Your task to perform on an android device: snooze an email in the gmail app Image 0: 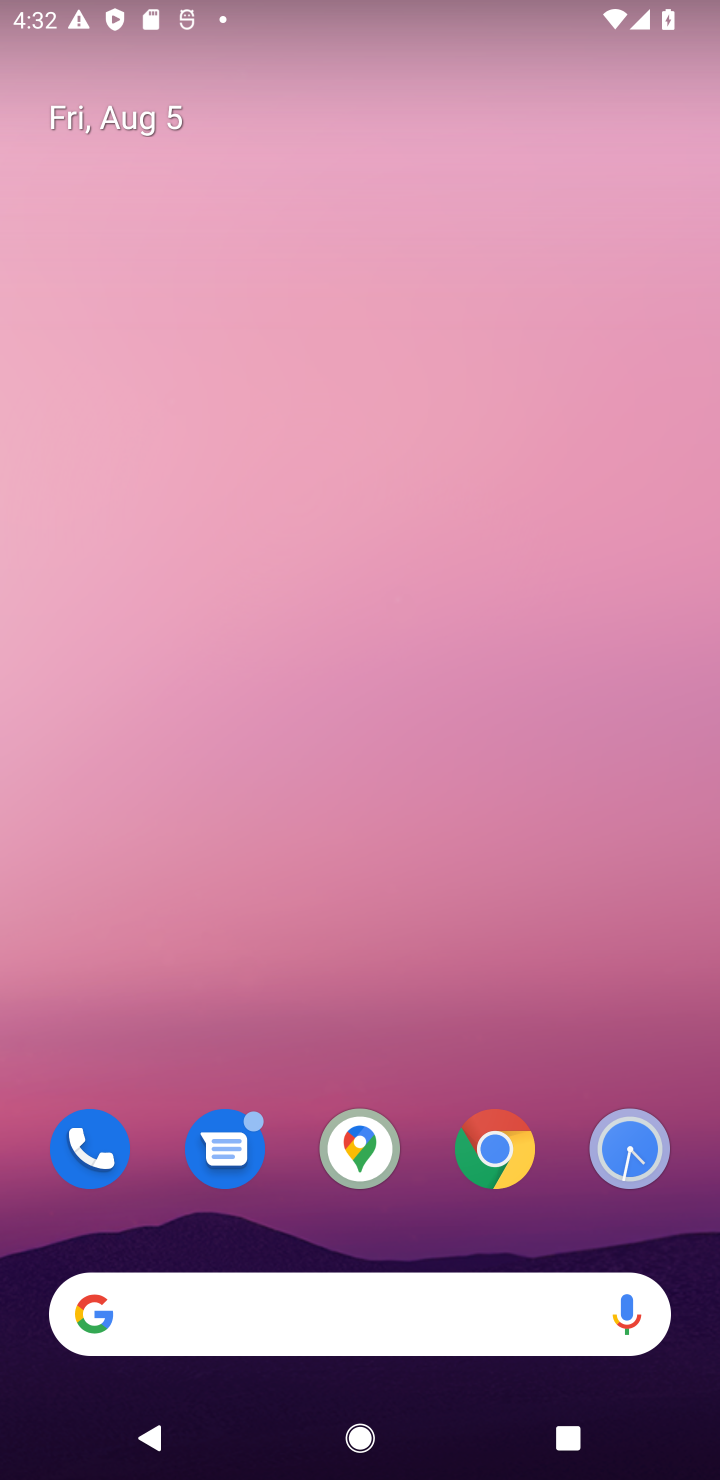
Step 0: press back button
Your task to perform on an android device: snooze an email in the gmail app Image 1: 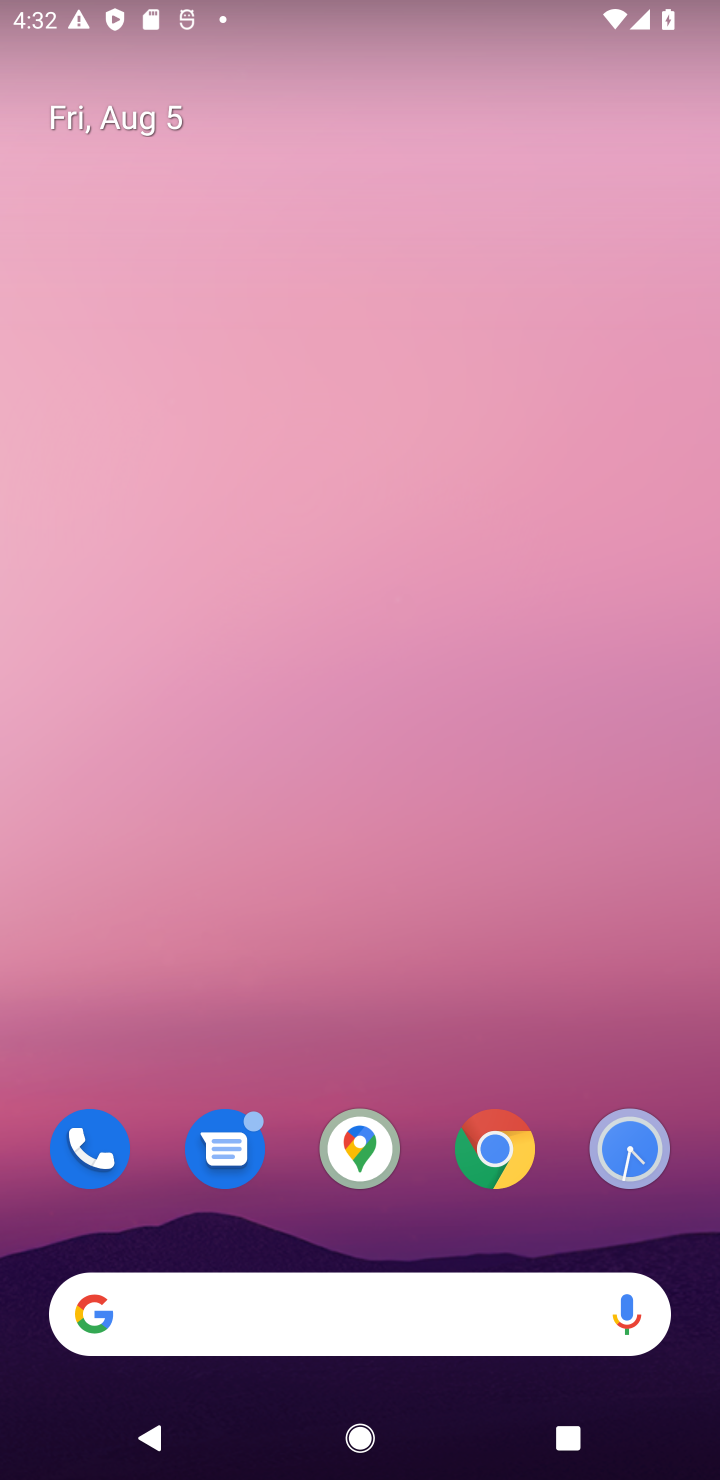
Step 1: drag from (424, 389) to (463, 27)
Your task to perform on an android device: snooze an email in the gmail app Image 2: 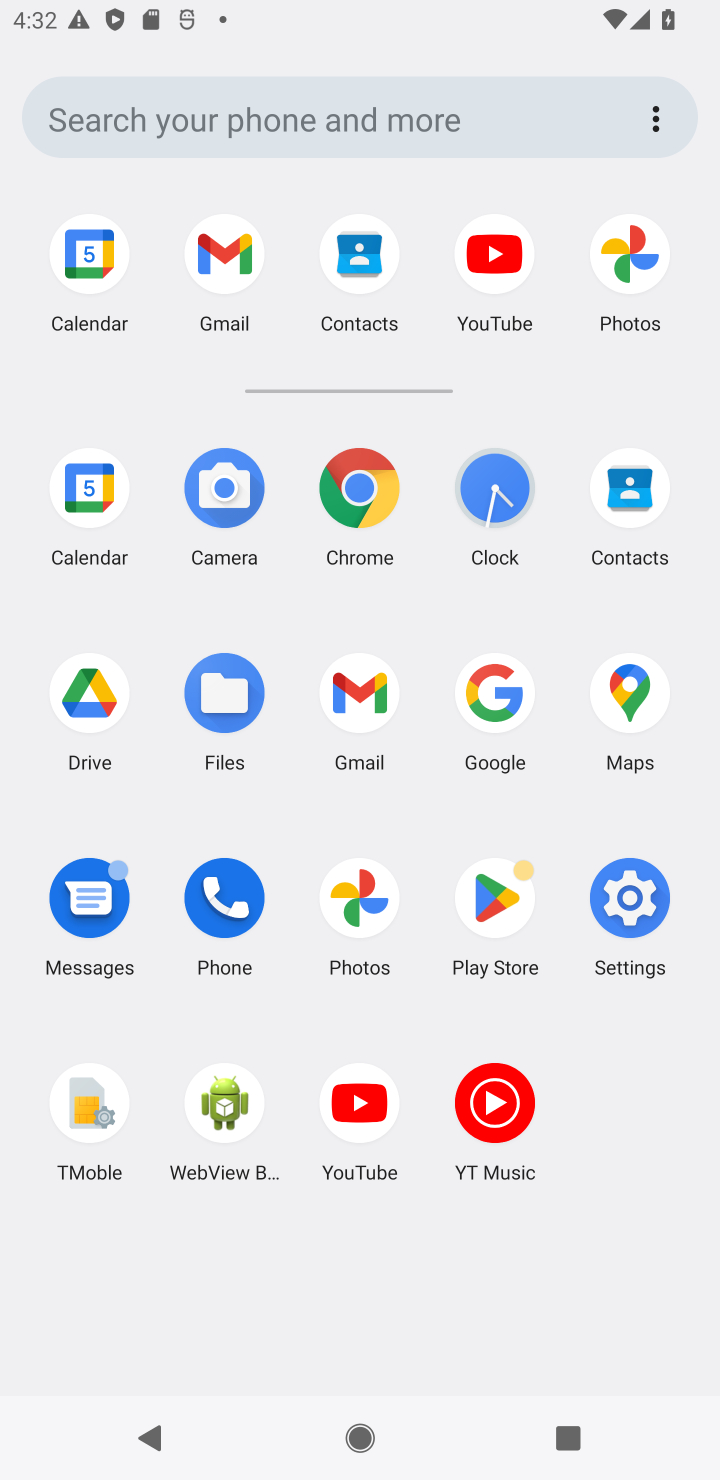
Step 2: click (501, 465)
Your task to perform on an android device: snooze an email in the gmail app Image 3: 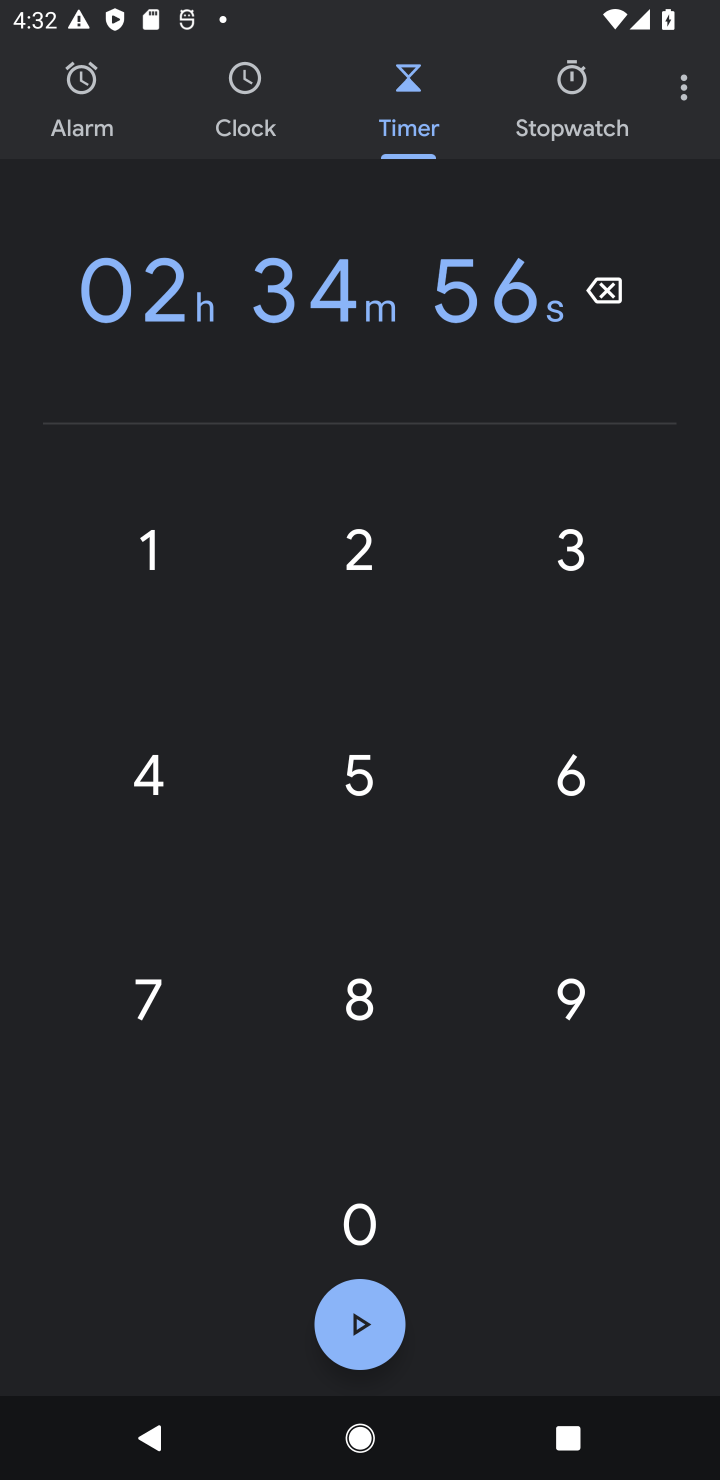
Step 3: click (93, 93)
Your task to perform on an android device: snooze an email in the gmail app Image 4: 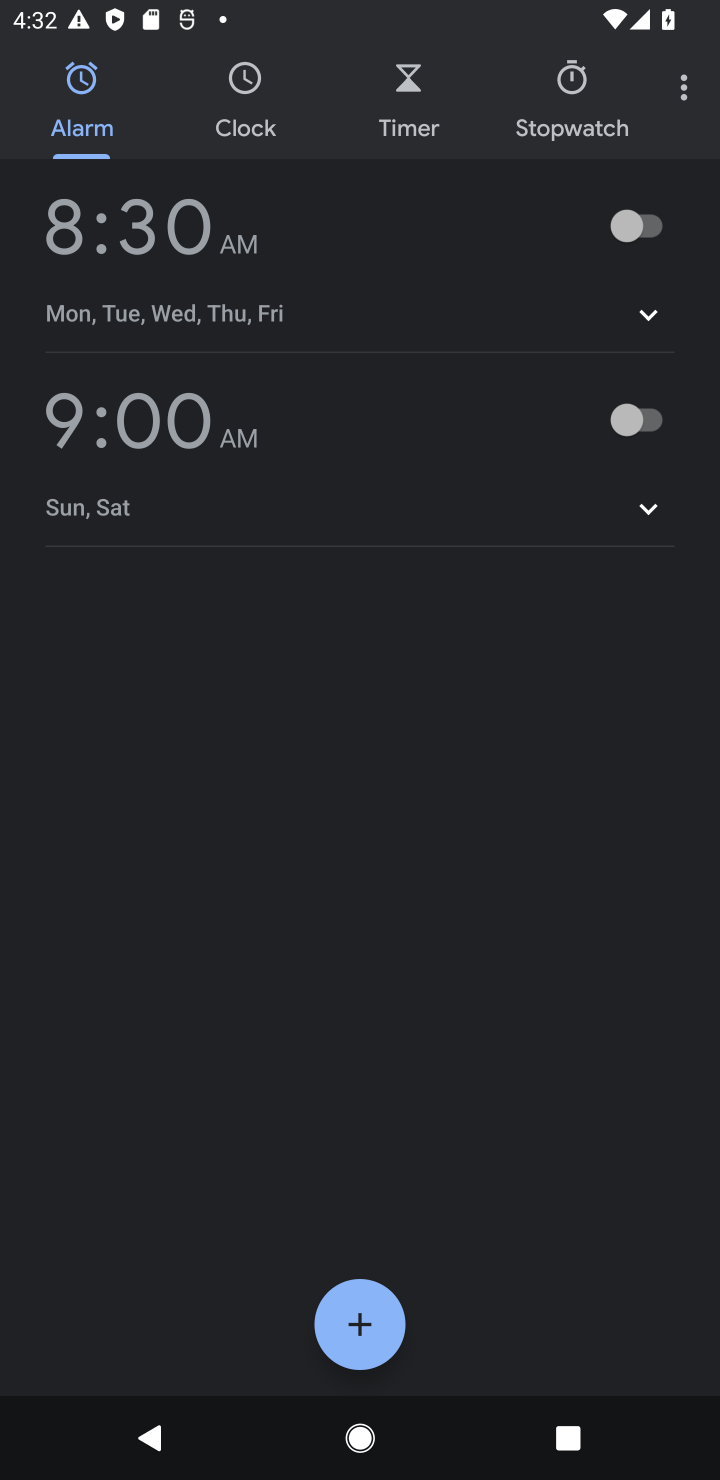
Step 4: press back button
Your task to perform on an android device: snooze an email in the gmail app Image 5: 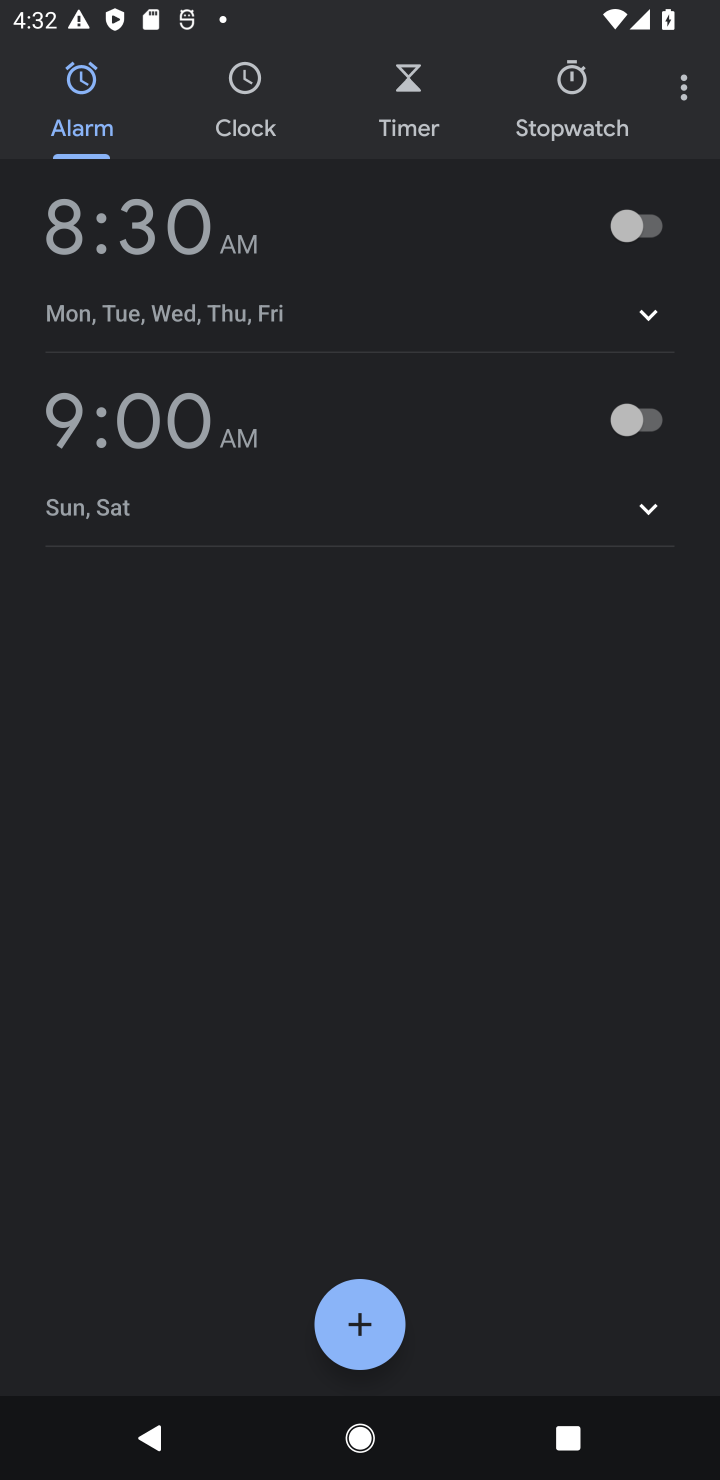
Step 5: press back button
Your task to perform on an android device: snooze an email in the gmail app Image 6: 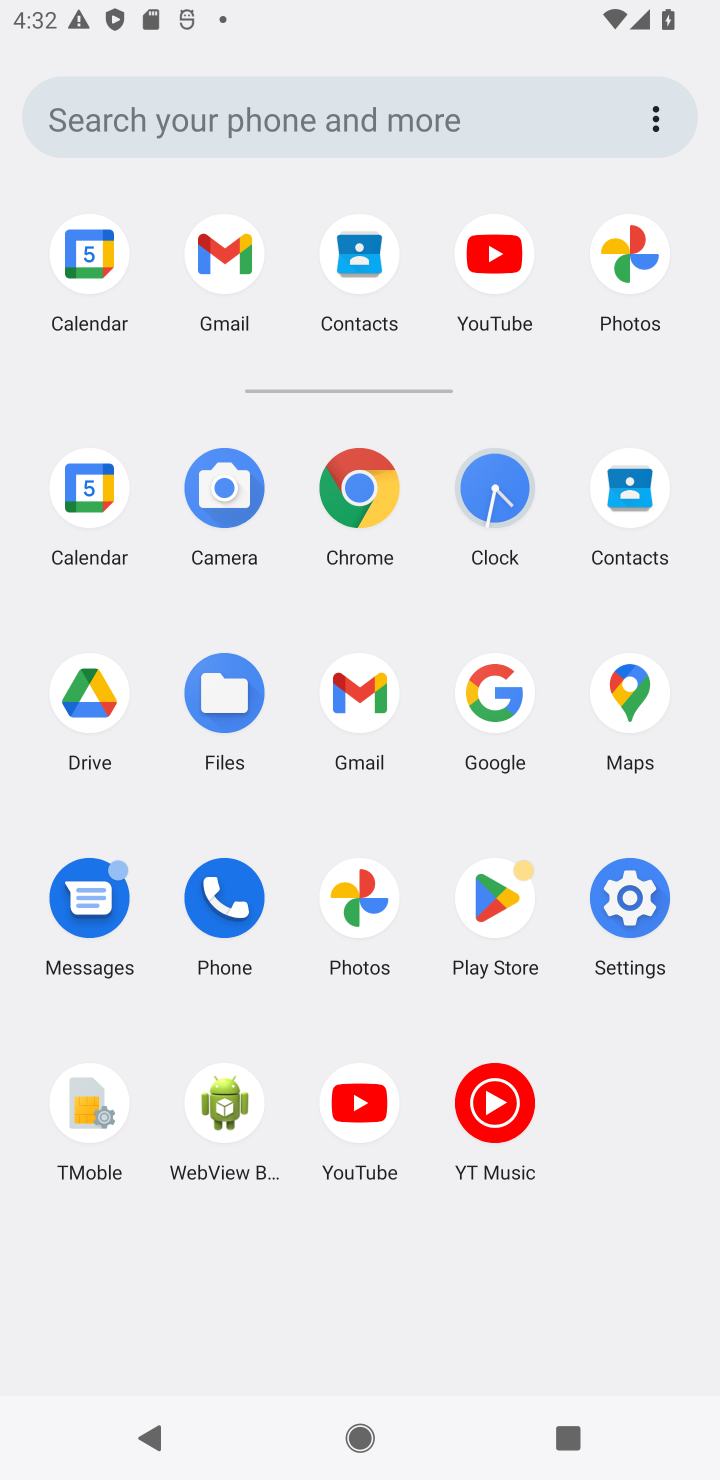
Step 6: press back button
Your task to perform on an android device: snooze an email in the gmail app Image 7: 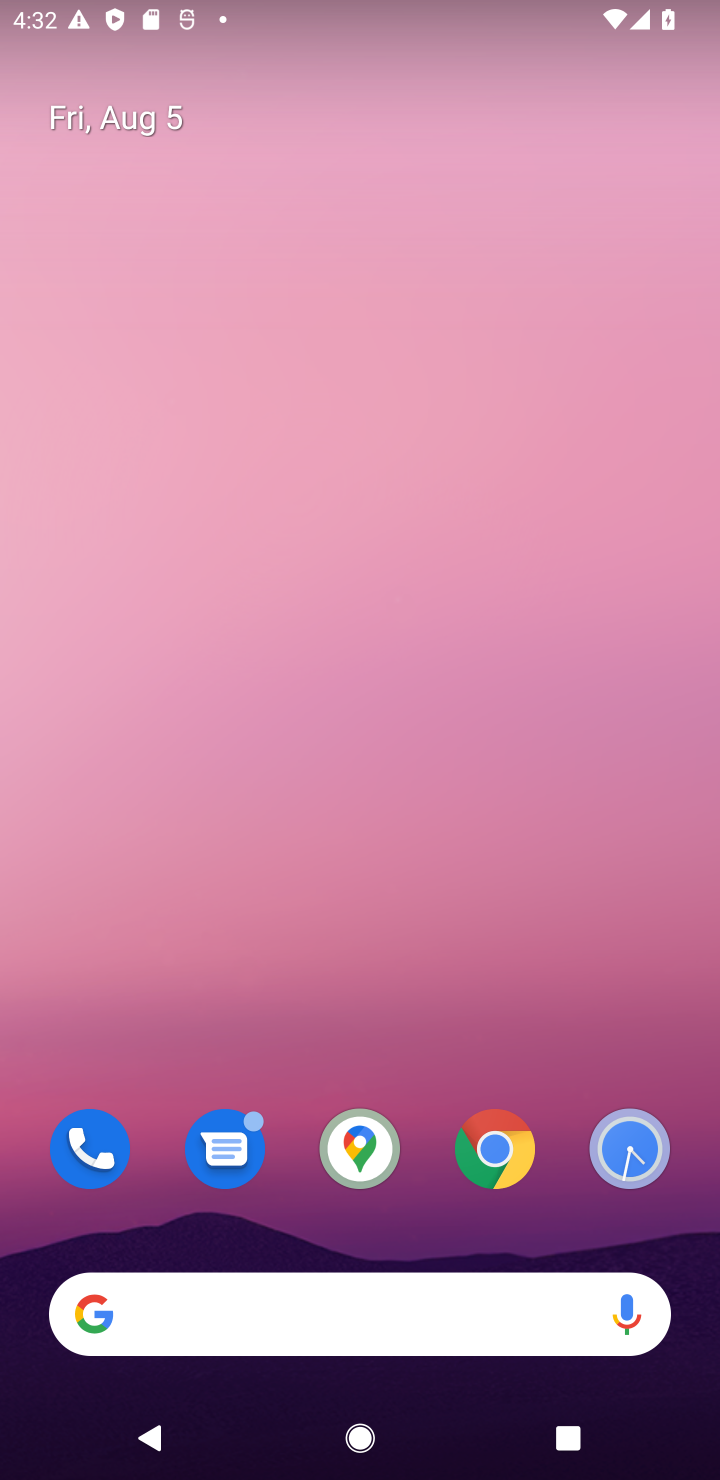
Step 7: drag from (303, 1053) to (434, 170)
Your task to perform on an android device: snooze an email in the gmail app Image 8: 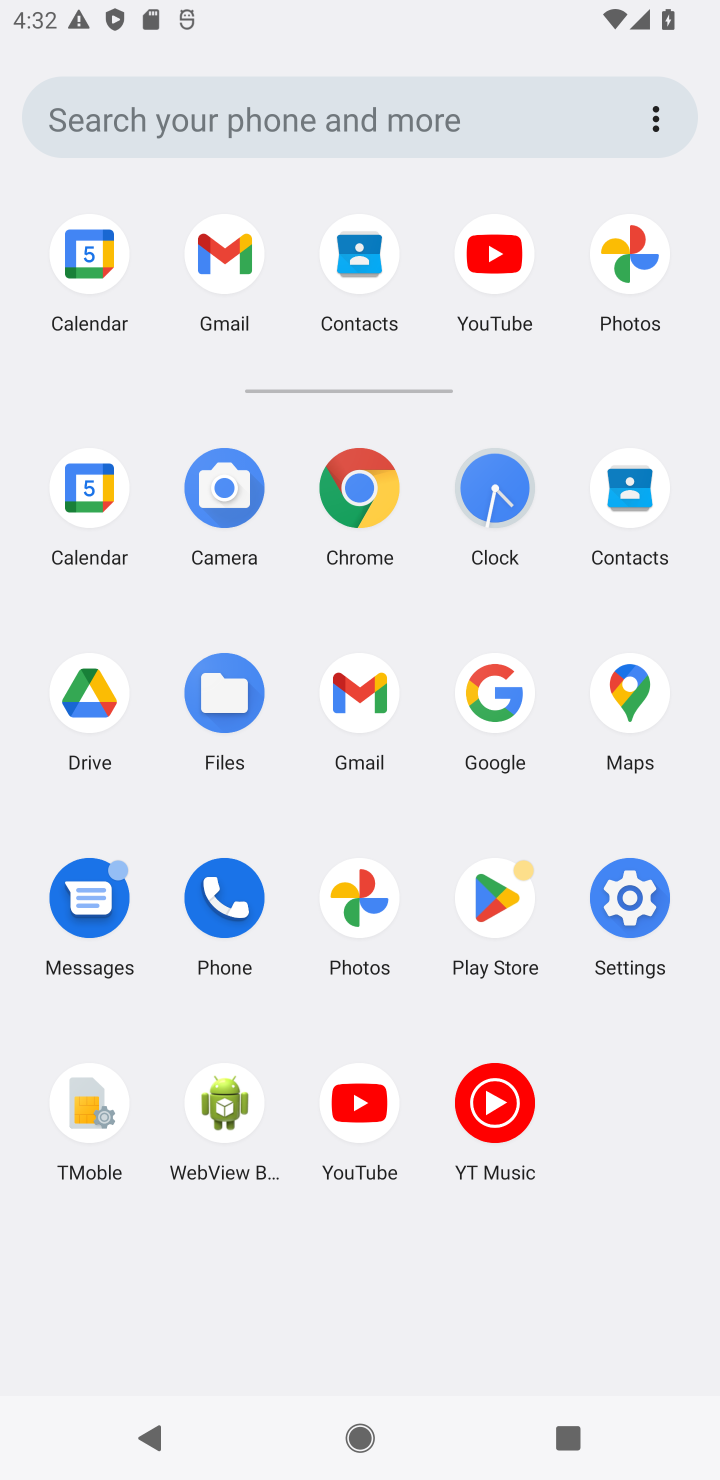
Step 8: click (209, 261)
Your task to perform on an android device: snooze an email in the gmail app Image 9: 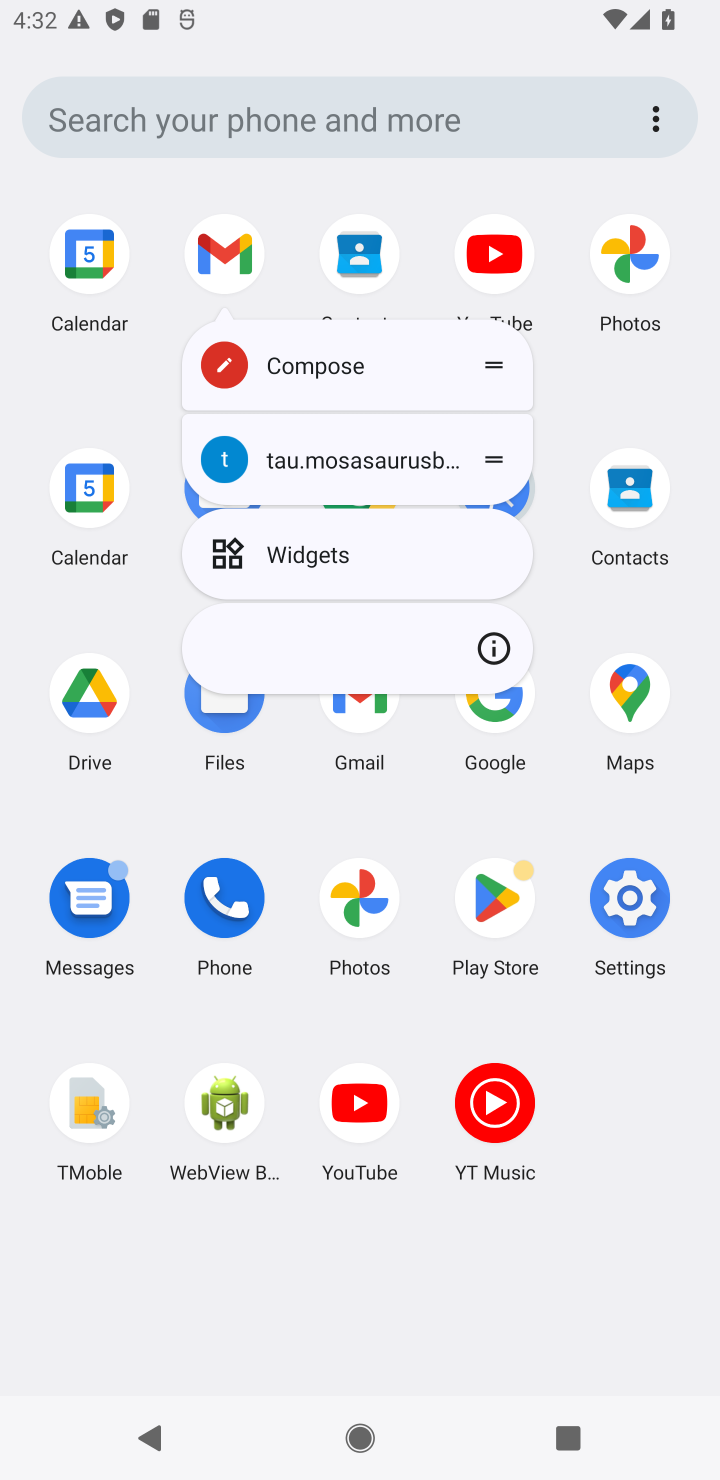
Step 9: click (254, 230)
Your task to perform on an android device: snooze an email in the gmail app Image 10: 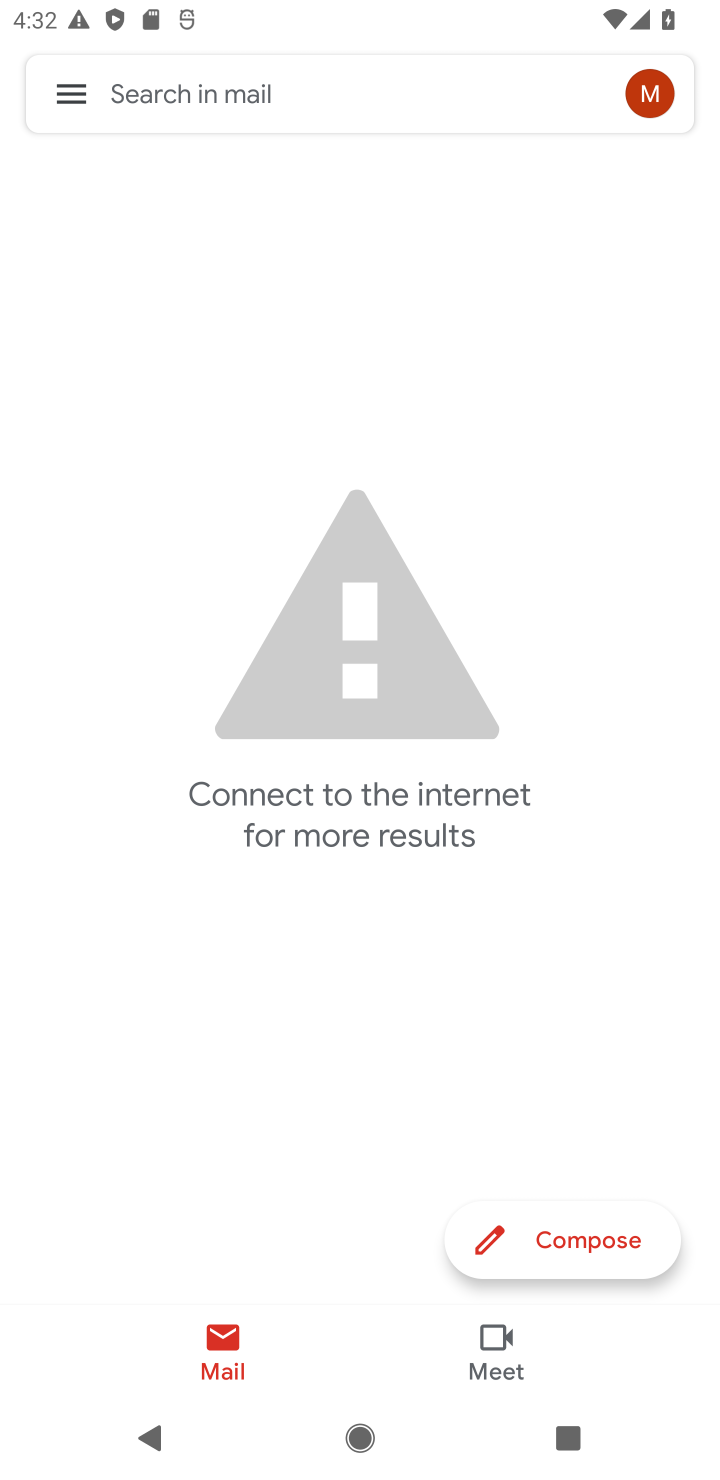
Step 10: click (69, 75)
Your task to perform on an android device: snooze an email in the gmail app Image 11: 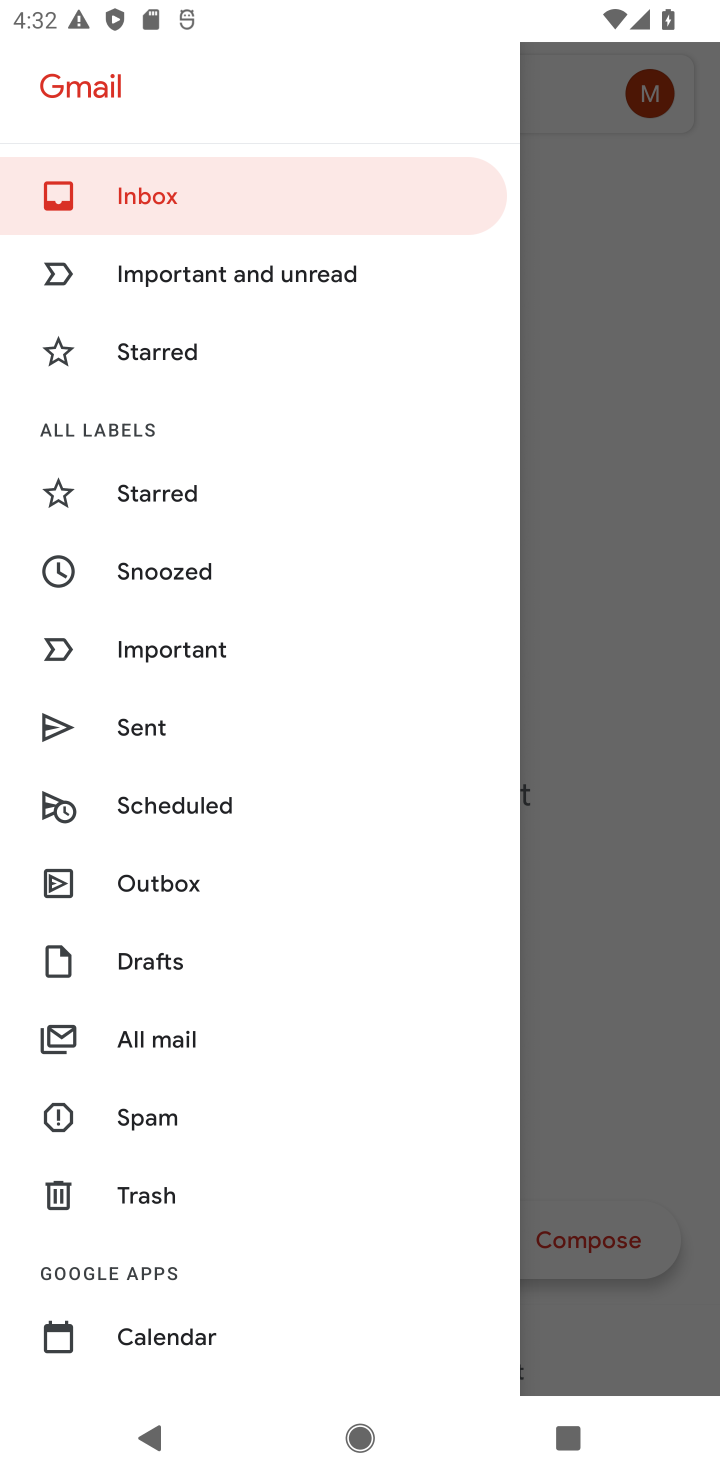
Step 11: click (159, 1040)
Your task to perform on an android device: snooze an email in the gmail app Image 12: 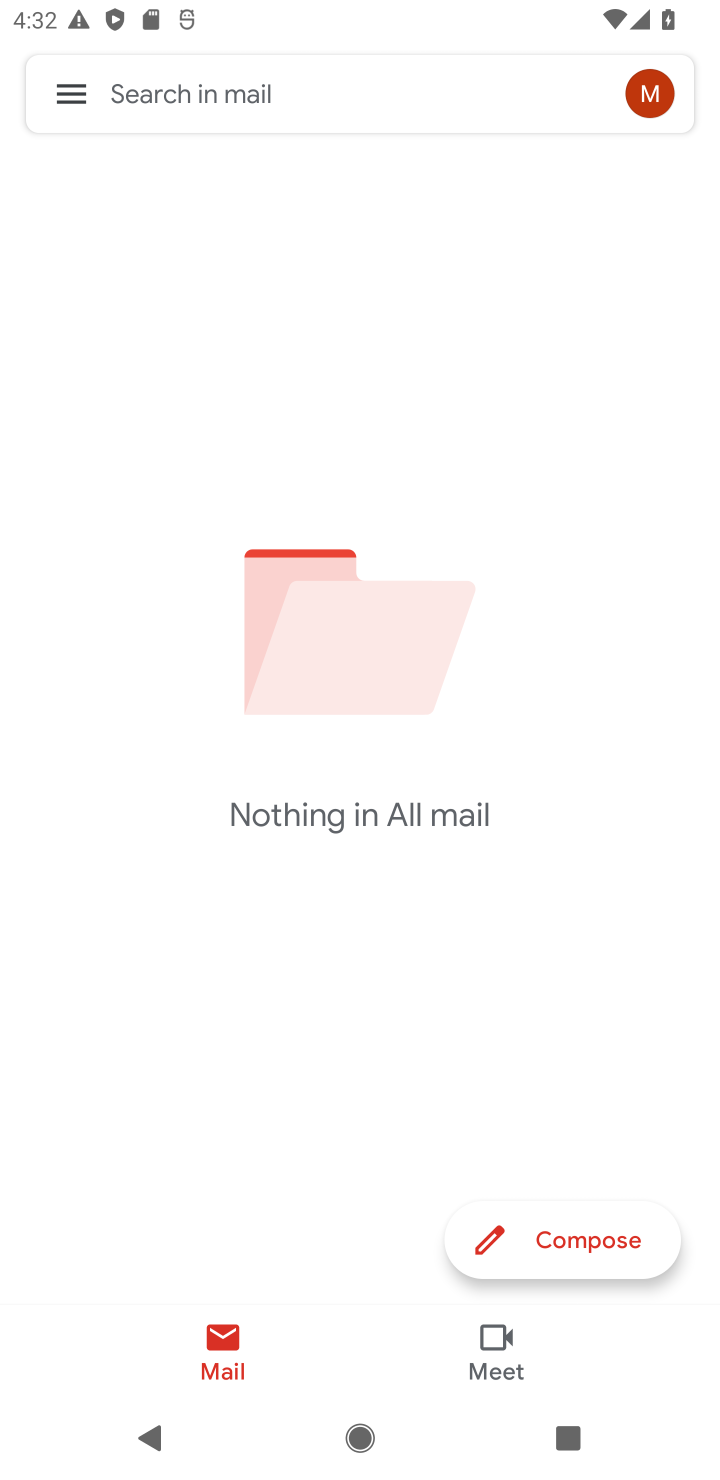
Step 12: task complete